Your task to perform on an android device: Open the stopwatch Image 0: 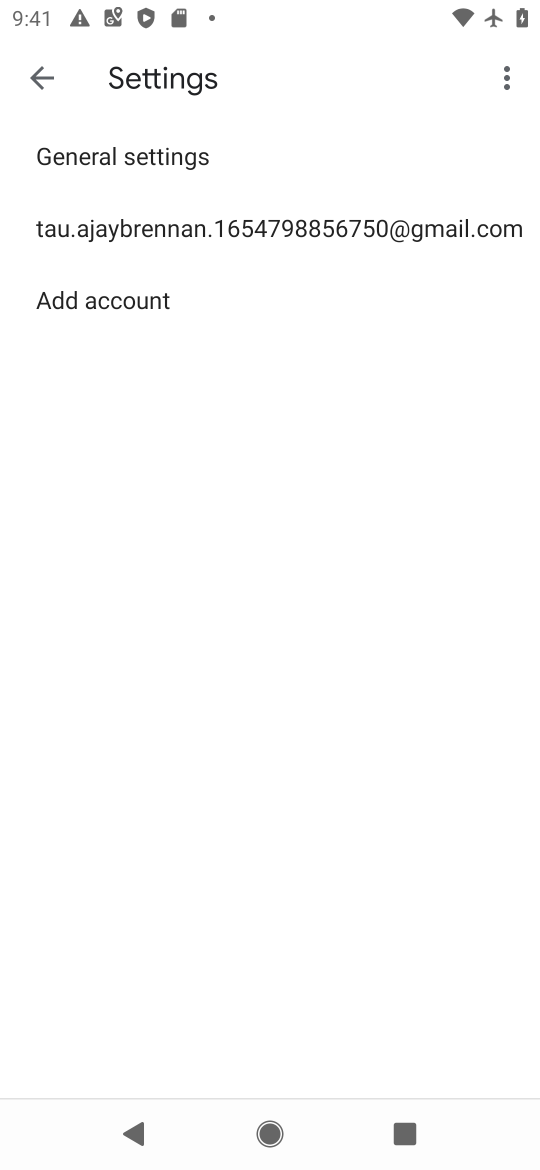
Step 0: press home button
Your task to perform on an android device: Open the stopwatch Image 1: 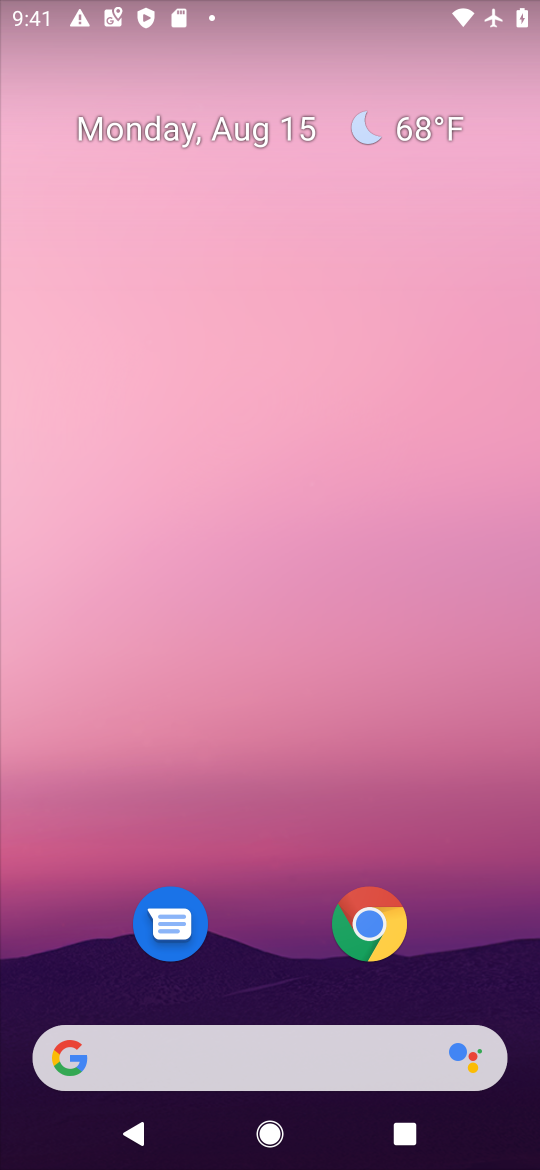
Step 1: drag from (504, 986) to (488, 331)
Your task to perform on an android device: Open the stopwatch Image 2: 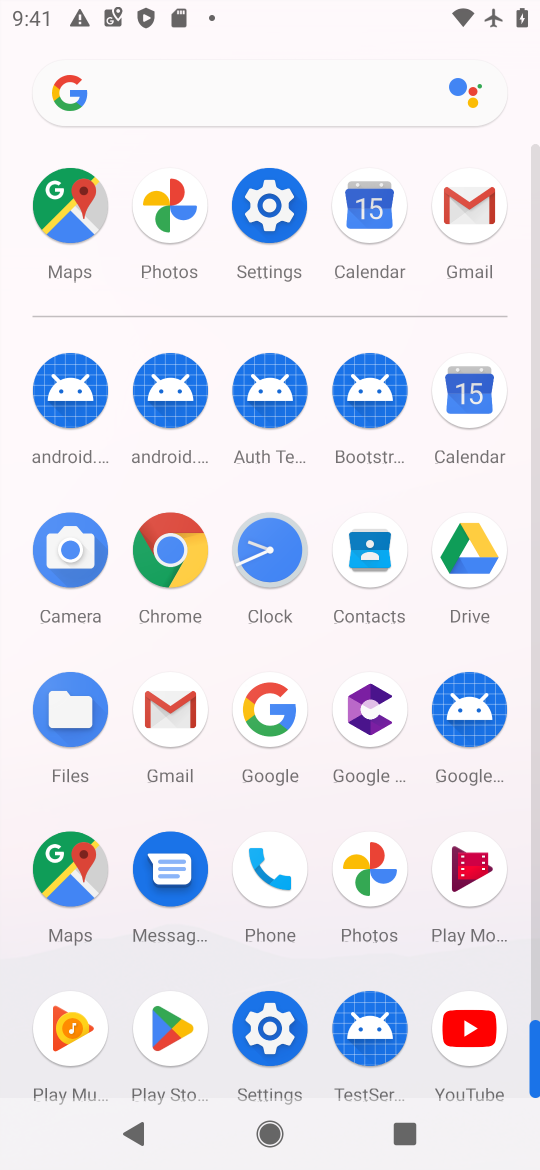
Step 2: click (272, 553)
Your task to perform on an android device: Open the stopwatch Image 3: 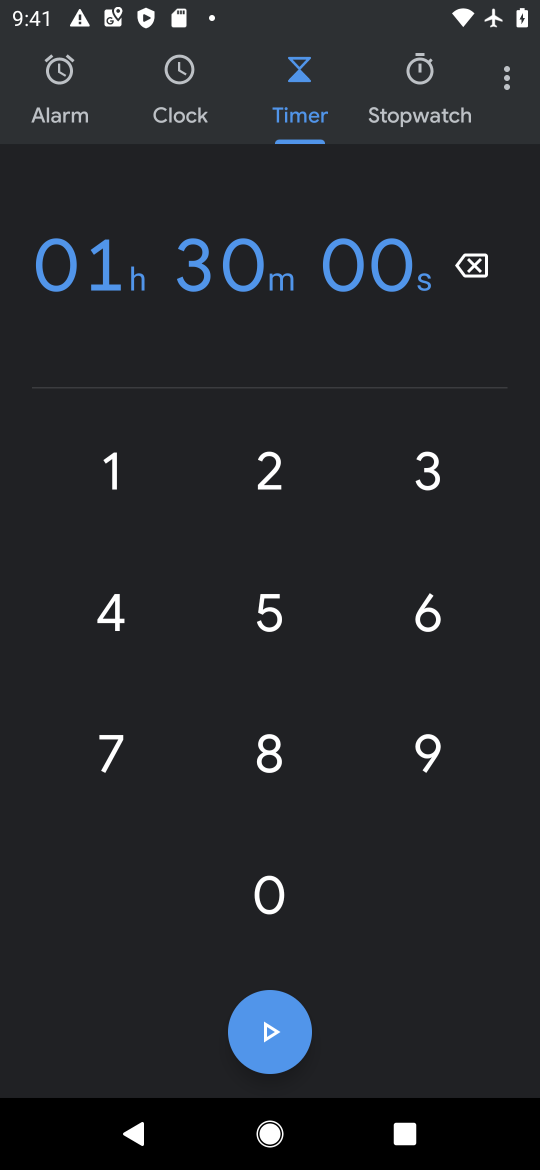
Step 3: click (426, 75)
Your task to perform on an android device: Open the stopwatch Image 4: 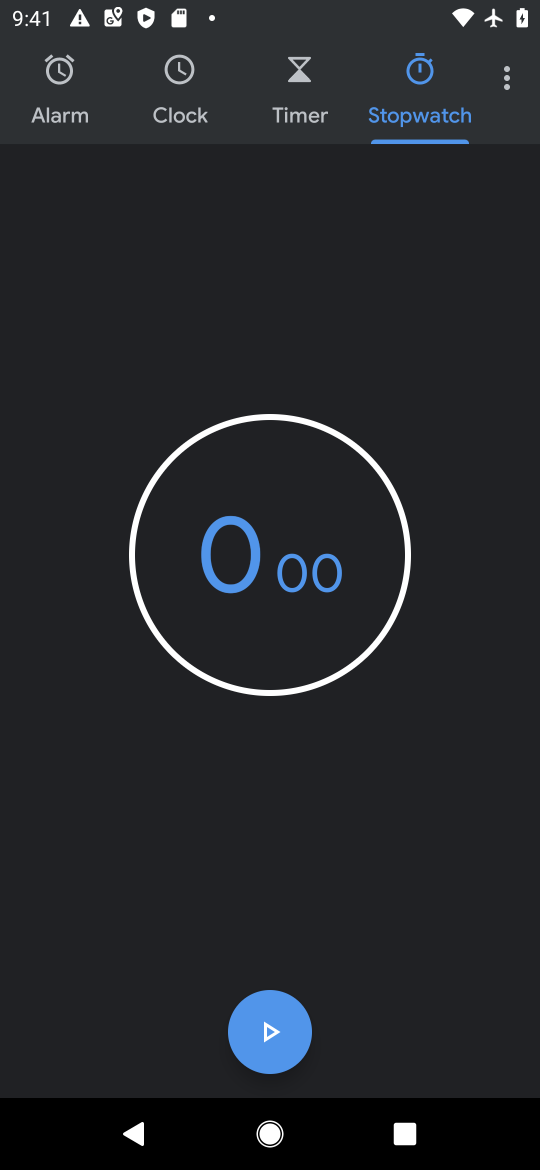
Step 4: task complete